Your task to perform on an android device: Go to calendar. Show me events next week Image 0: 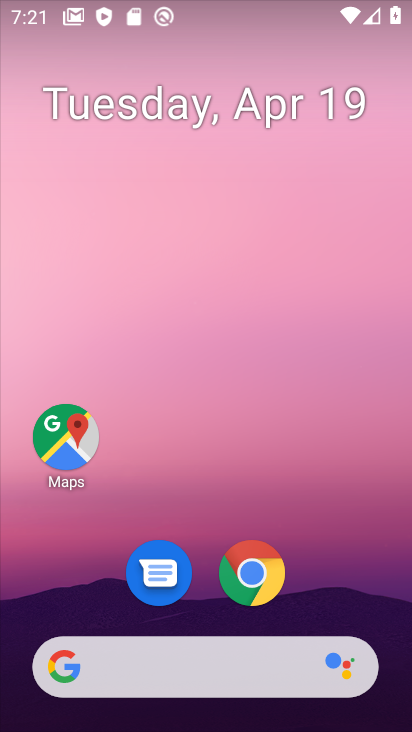
Step 0: drag from (353, 610) to (315, 201)
Your task to perform on an android device: Go to calendar. Show me events next week Image 1: 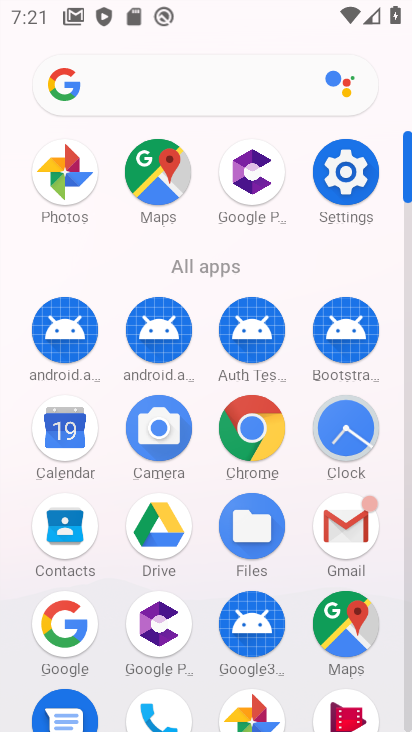
Step 1: click (62, 439)
Your task to perform on an android device: Go to calendar. Show me events next week Image 2: 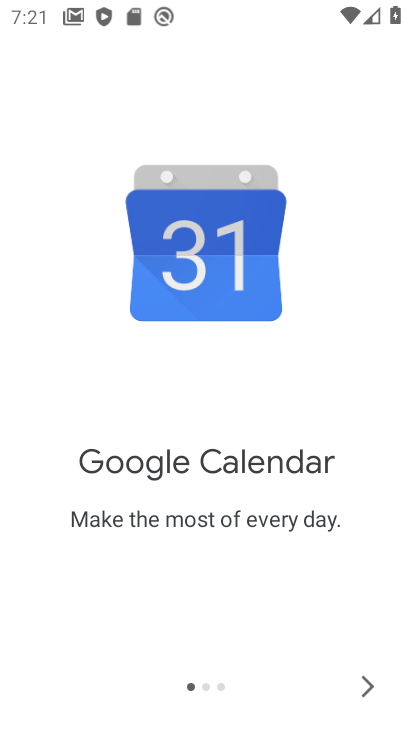
Step 2: click (364, 685)
Your task to perform on an android device: Go to calendar. Show me events next week Image 3: 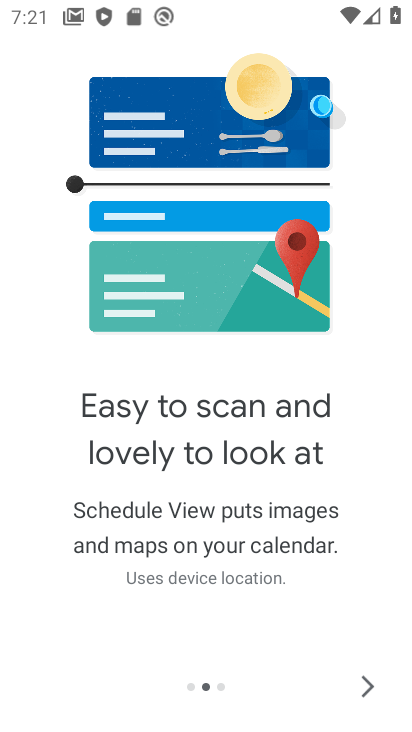
Step 3: click (364, 685)
Your task to perform on an android device: Go to calendar. Show me events next week Image 4: 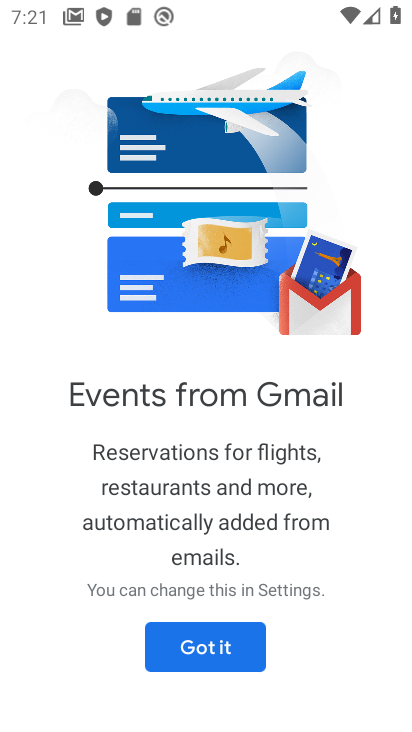
Step 4: click (364, 685)
Your task to perform on an android device: Go to calendar. Show me events next week Image 5: 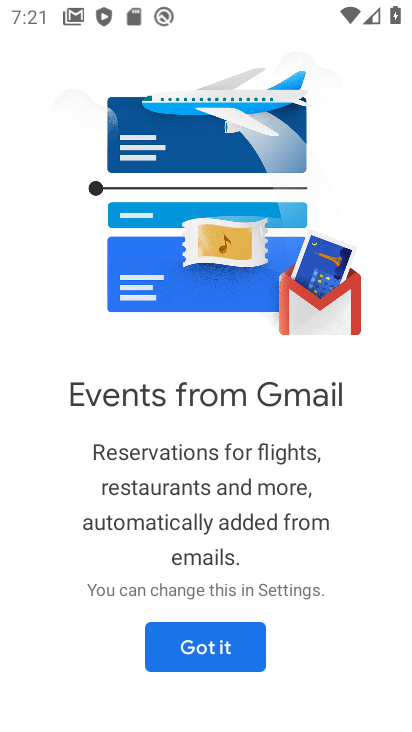
Step 5: click (245, 652)
Your task to perform on an android device: Go to calendar. Show me events next week Image 6: 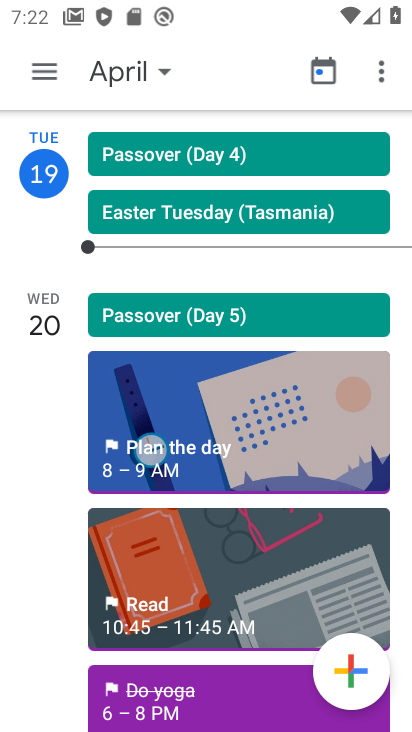
Step 6: click (160, 71)
Your task to perform on an android device: Go to calendar. Show me events next week Image 7: 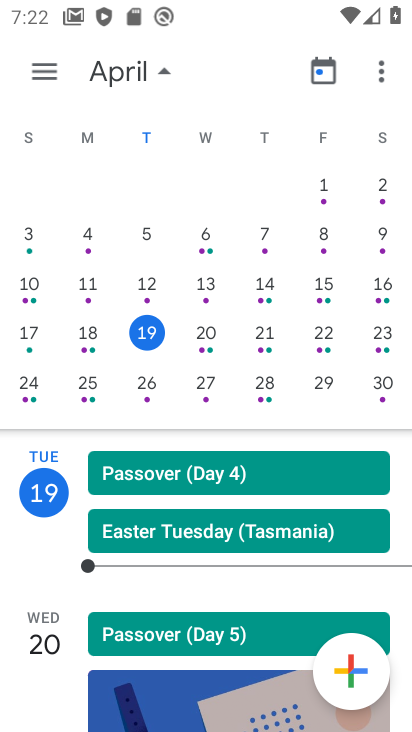
Step 7: click (143, 378)
Your task to perform on an android device: Go to calendar. Show me events next week Image 8: 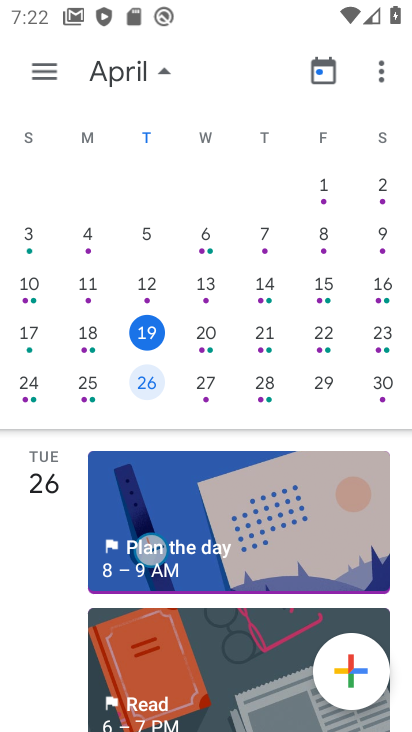
Step 8: task complete